Your task to perform on an android device: open app "Speedtest by Ookla" (install if not already installed) Image 0: 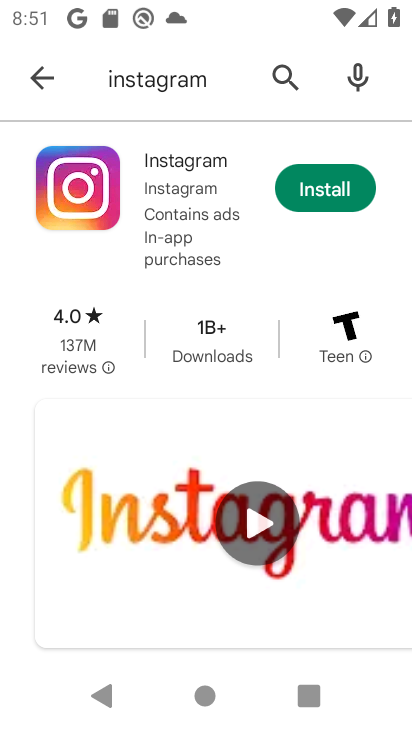
Step 0: click (39, 69)
Your task to perform on an android device: open app "Speedtest by Ookla" (install if not already installed) Image 1: 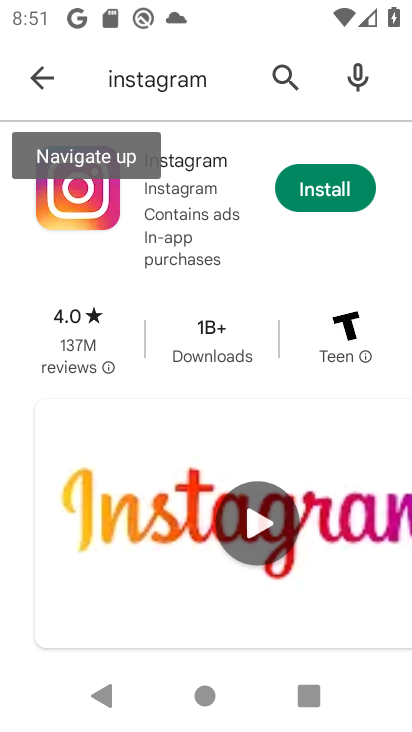
Step 1: click (41, 76)
Your task to perform on an android device: open app "Speedtest by Ookla" (install if not already installed) Image 2: 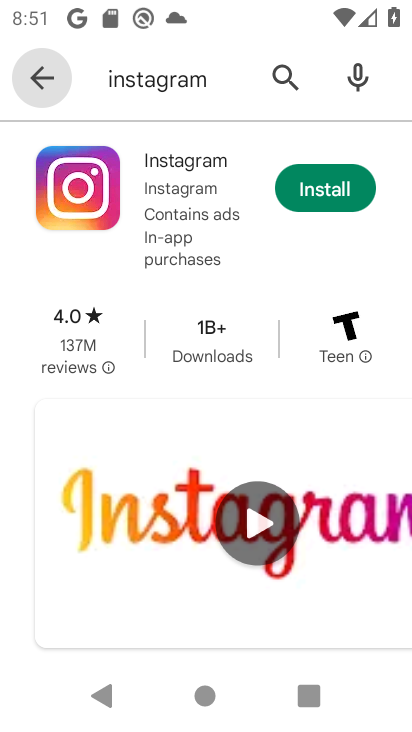
Step 2: click (41, 77)
Your task to perform on an android device: open app "Speedtest by Ookla" (install if not already installed) Image 3: 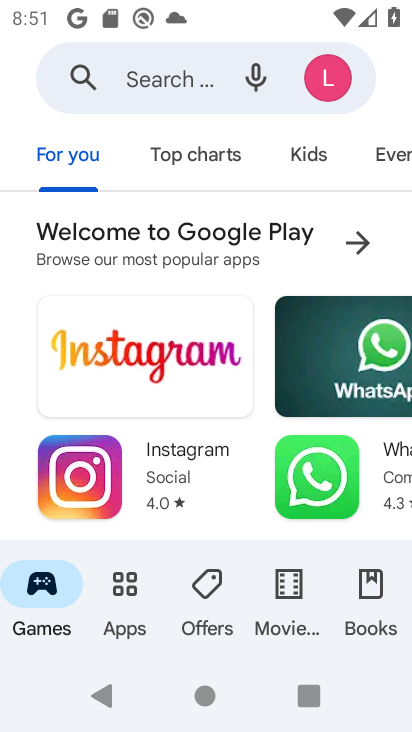
Step 3: click (42, 78)
Your task to perform on an android device: open app "Speedtest by Ookla" (install if not already installed) Image 4: 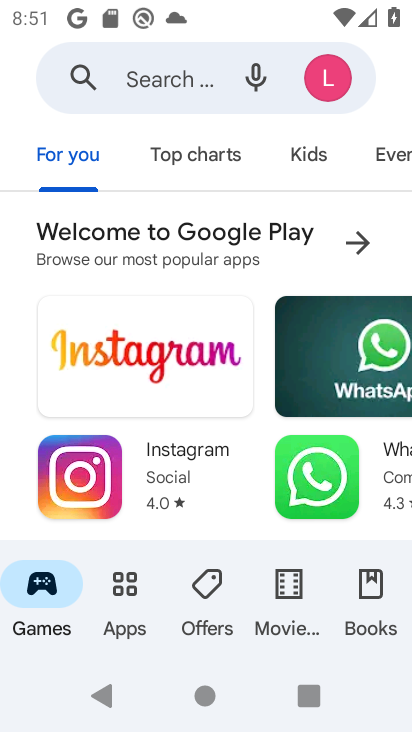
Step 4: click (141, 82)
Your task to perform on an android device: open app "Speedtest by Ookla" (install if not already installed) Image 5: 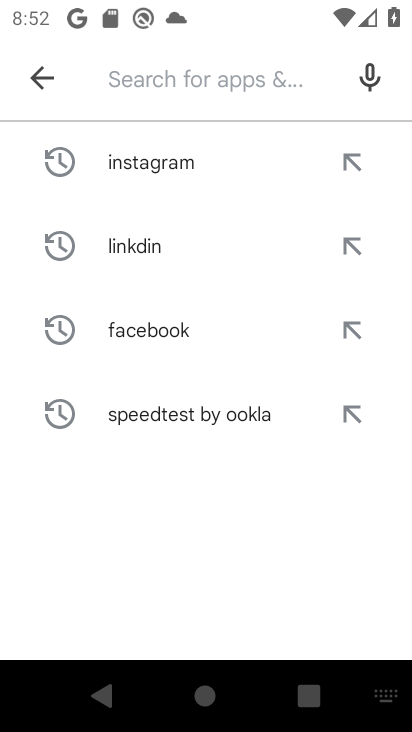
Step 5: type "Speedtest by Ookla"
Your task to perform on an android device: open app "Speedtest by Ookla" (install if not already installed) Image 6: 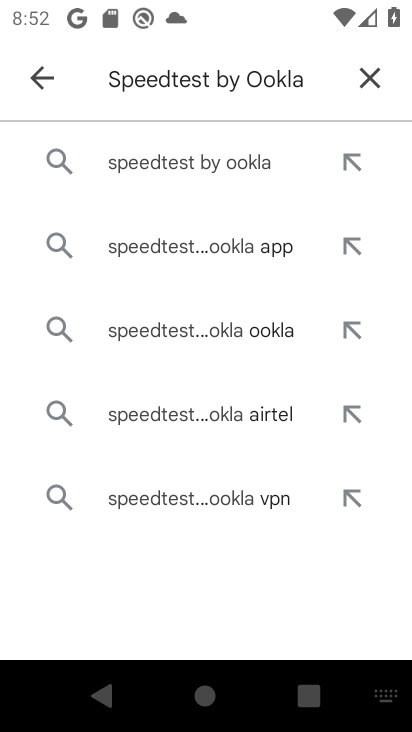
Step 6: click (229, 163)
Your task to perform on an android device: open app "Speedtest by Ookla" (install if not already installed) Image 7: 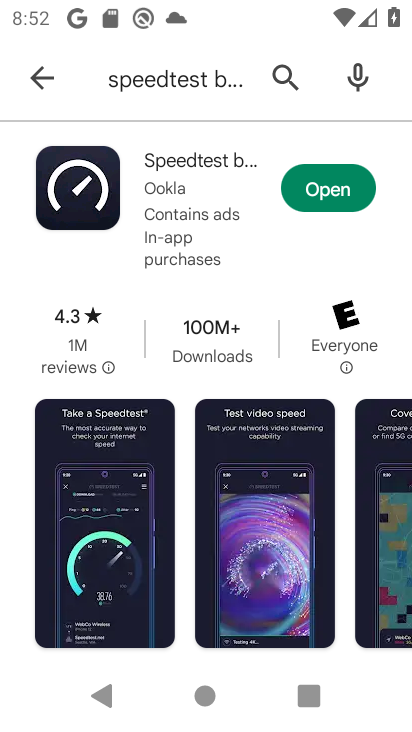
Step 7: click (349, 193)
Your task to perform on an android device: open app "Speedtest by Ookla" (install if not already installed) Image 8: 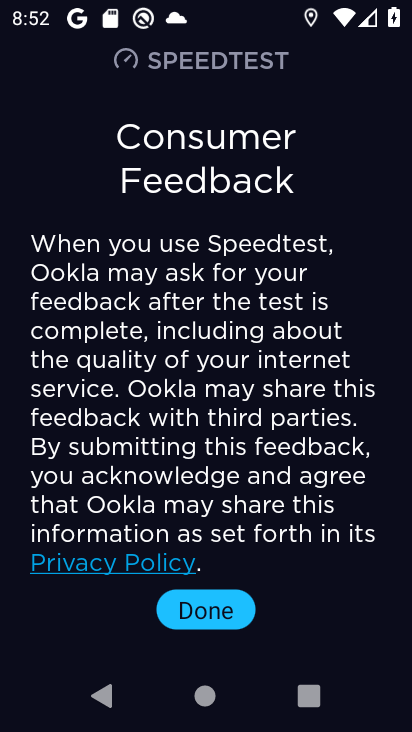
Step 8: click (209, 601)
Your task to perform on an android device: open app "Speedtest by Ookla" (install if not already installed) Image 9: 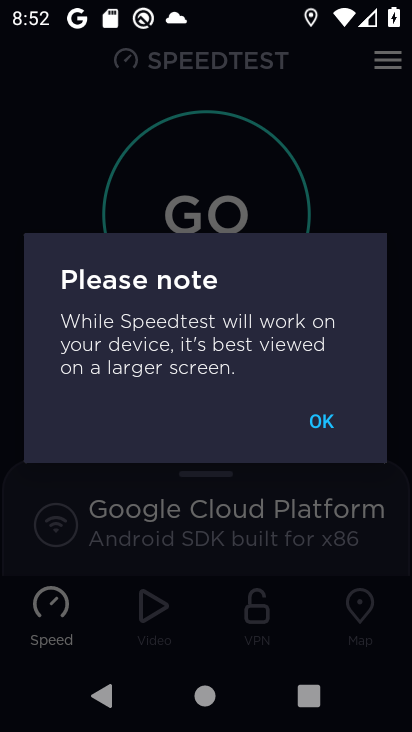
Step 9: click (334, 146)
Your task to perform on an android device: open app "Speedtest by Ookla" (install if not already installed) Image 10: 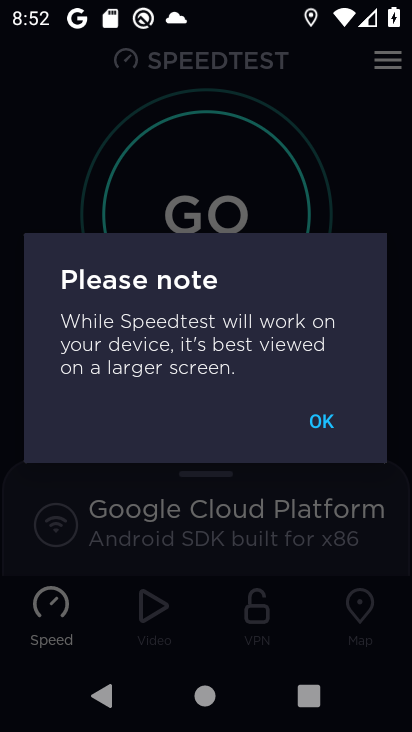
Step 10: click (320, 422)
Your task to perform on an android device: open app "Speedtest by Ookla" (install if not already installed) Image 11: 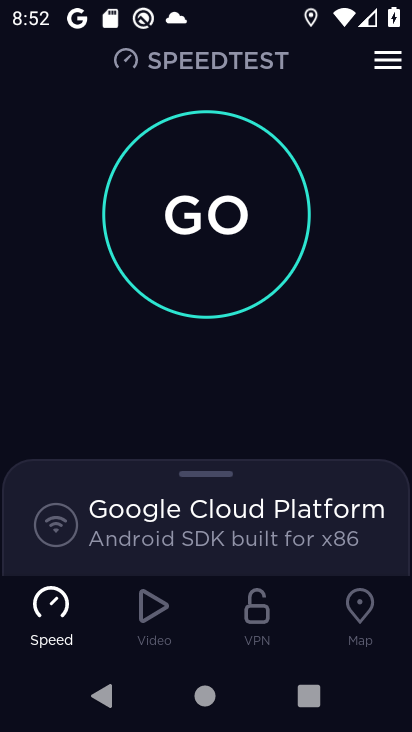
Step 11: click (320, 422)
Your task to perform on an android device: open app "Speedtest by Ookla" (install if not already installed) Image 12: 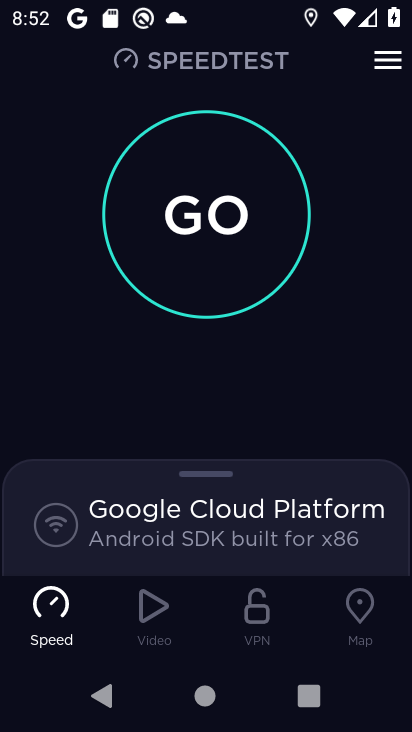
Step 12: task complete